Your task to perform on an android device: Search for razer thresher on amazon, select the first entry, add it to the cart, then select checkout. Image 0: 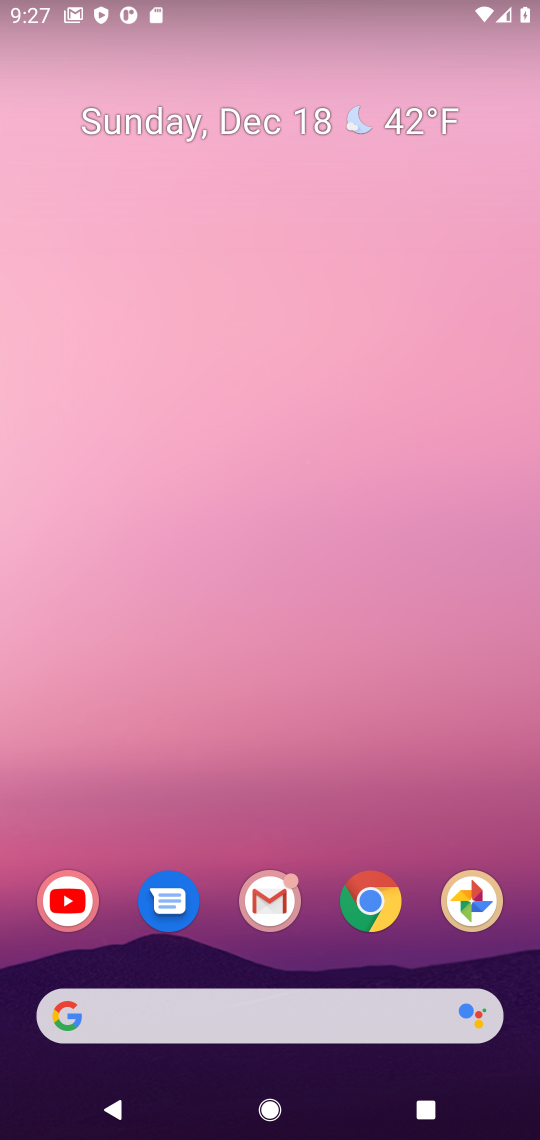
Step 0: click (387, 897)
Your task to perform on an android device: Search for razer thresher on amazon, select the first entry, add it to the cart, then select checkout. Image 1: 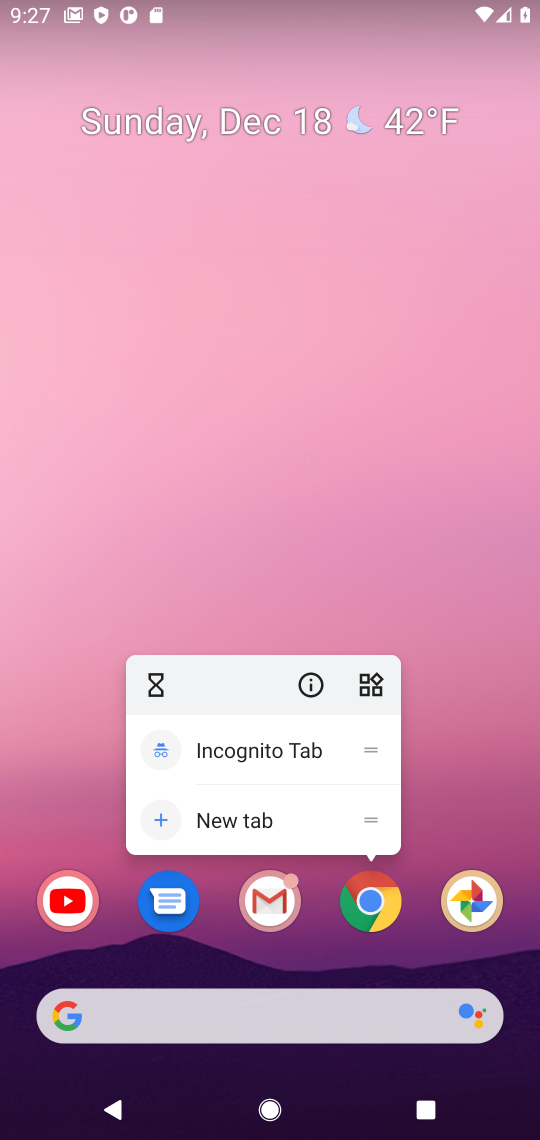
Step 1: click (387, 897)
Your task to perform on an android device: Search for razer thresher on amazon, select the first entry, add it to the cart, then select checkout. Image 2: 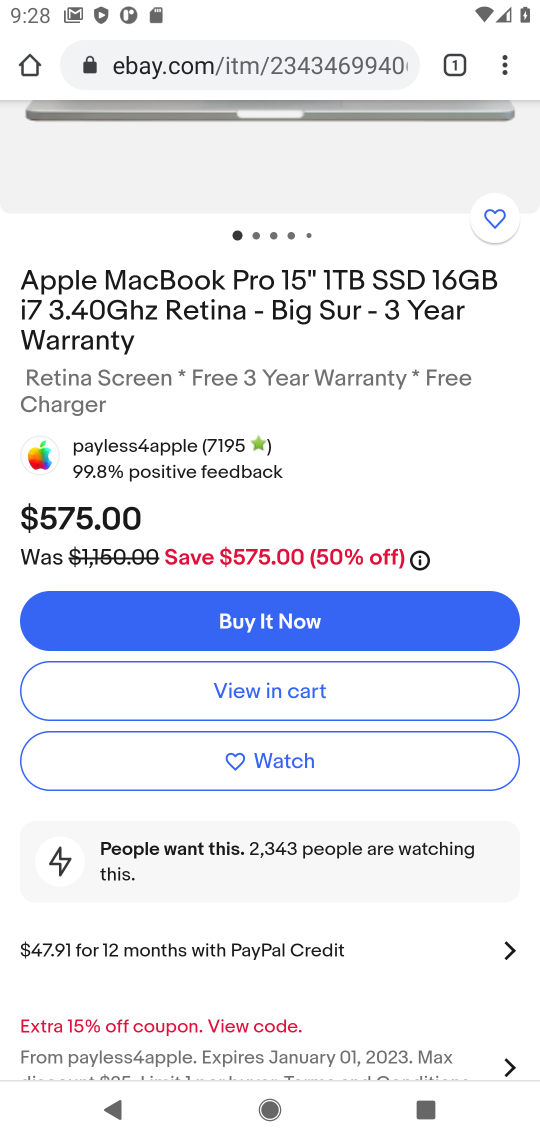
Step 2: click (228, 64)
Your task to perform on an android device: Search for razer thresher on amazon, select the first entry, add it to the cart, then select checkout. Image 3: 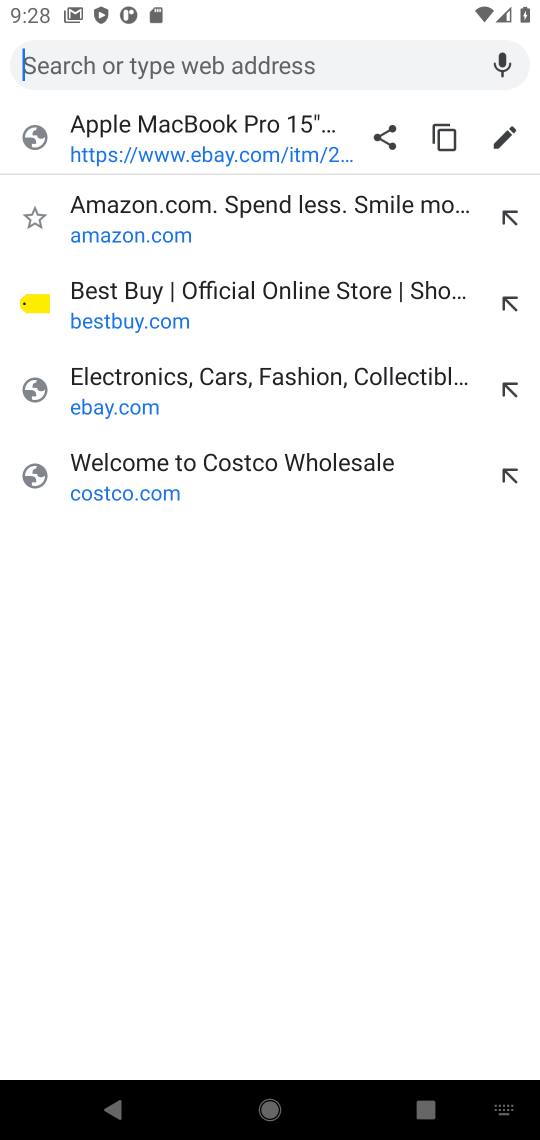
Step 3: type "amazon"
Your task to perform on an android device: Search for razer thresher on amazon, select the first entry, add it to the cart, then select checkout. Image 4: 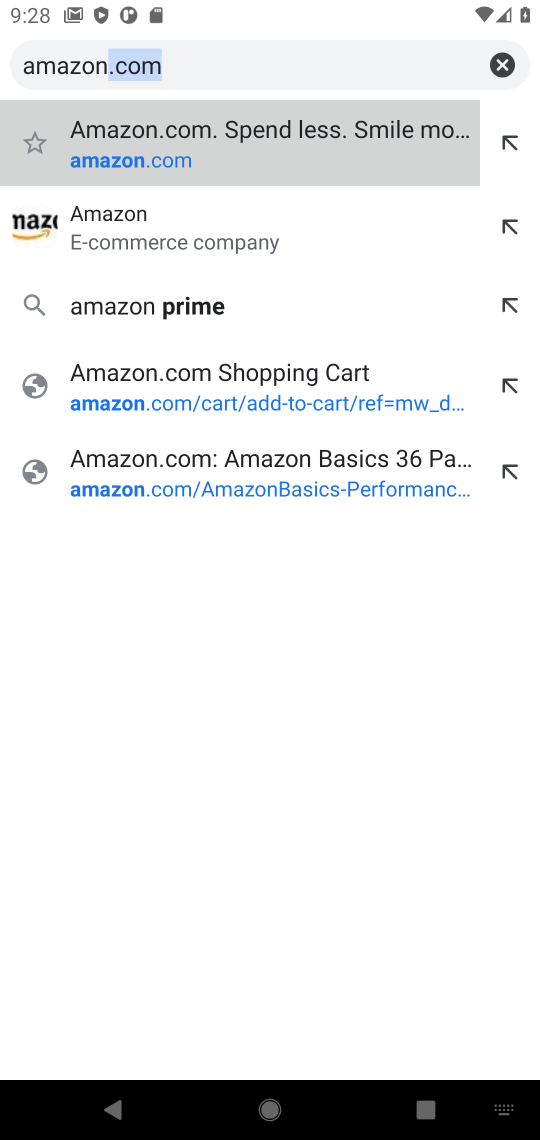
Step 4: click (157, 153)
Your task to perform on an android device: Search for razer thresher on amazon, select the first entry, add it to the cart, then select checkout. Image 5: 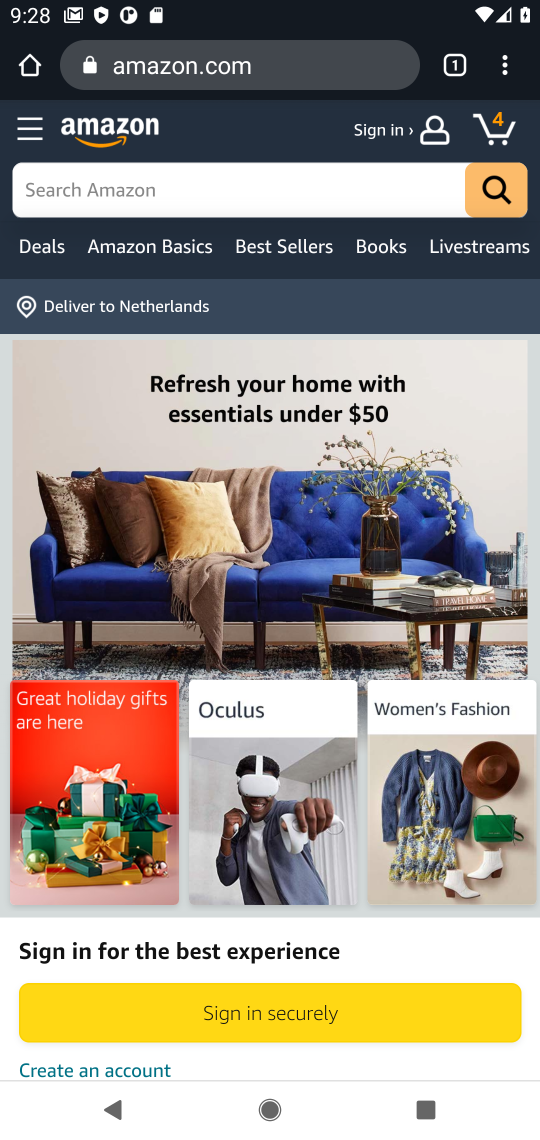
Step 5: click (38, 206)
Your task to perform on an android device: Search for razer thresher on amazon, select the first entry, add it to the cart, then select checkout. Image 6: 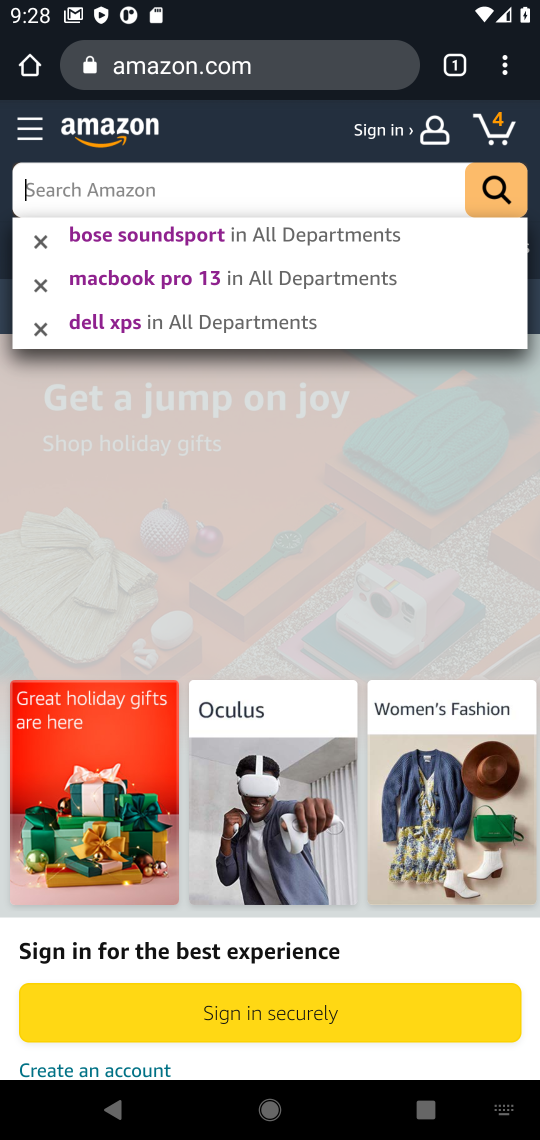
Step 6: type "razer thresher "
Your task to perform on an android device: Search for razer thresher on amazon, select the first entry, add it to the cart, then select checkout. Image 7: 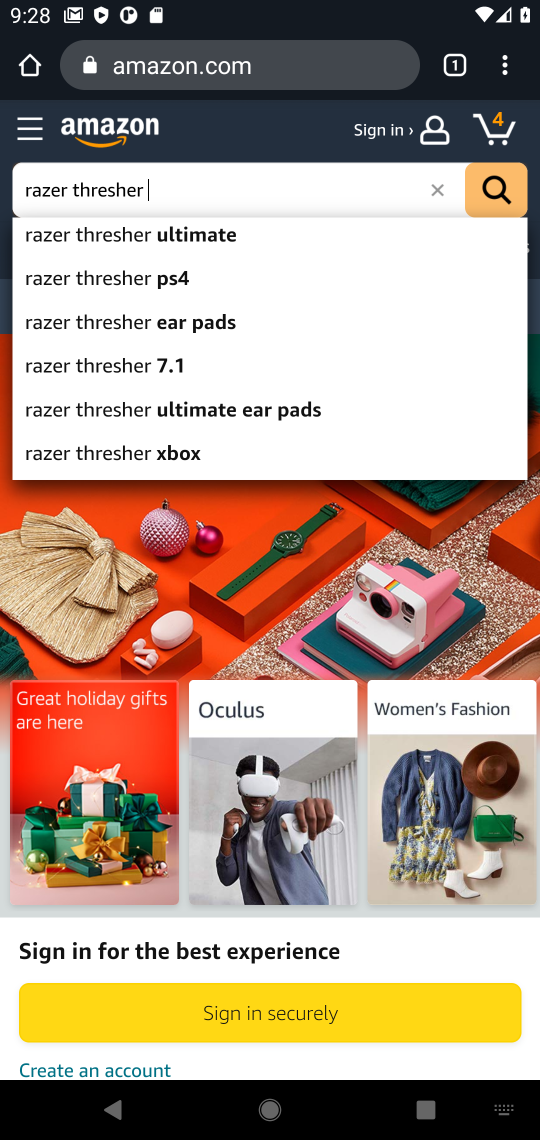
Step 7: click (500, 211)
Your task to perform on an android device: Search for razer thresher on amazon, select the first entry, add it to the cart, then select checkout. Image 8: 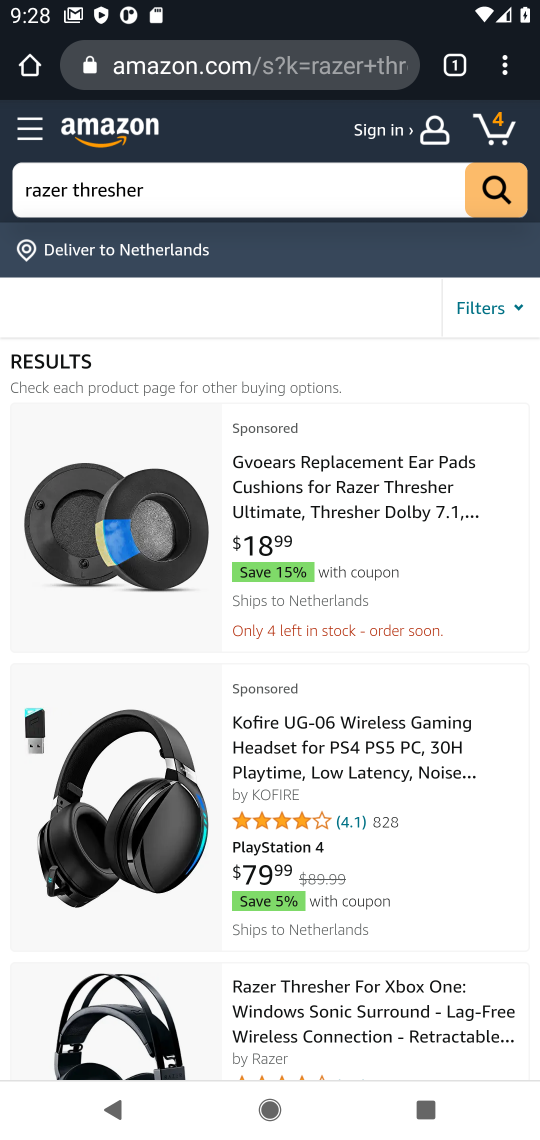
Step 8: click (296, 496)
Your task to perform on an android device: Search for razer thresher on amazon, select the first entry, add it to the cart, then select checkout. Image 9: 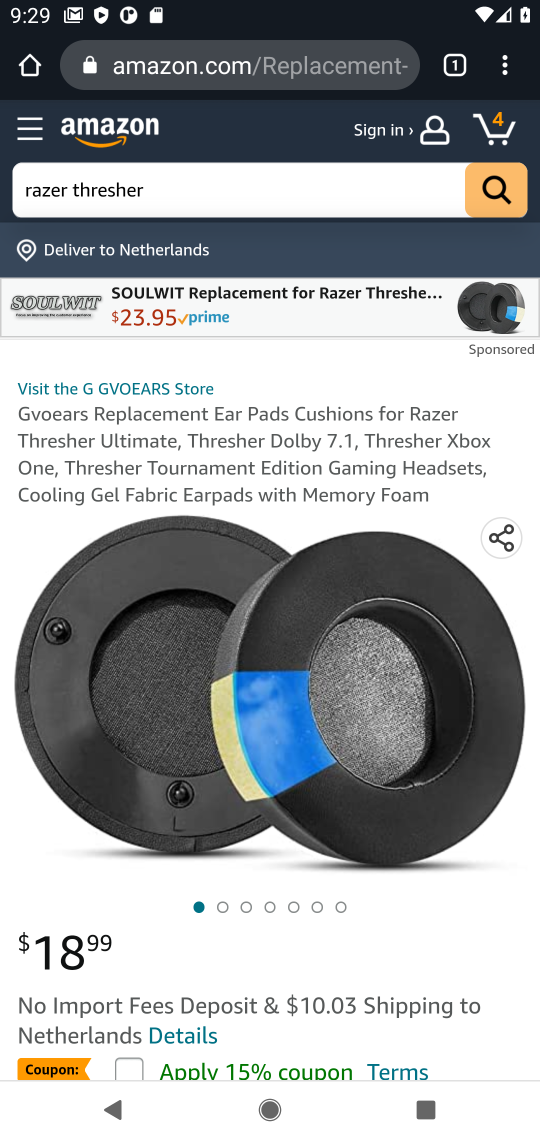
Step 9: task complete